Your task to perform on an android device: Go to settings Image 0: 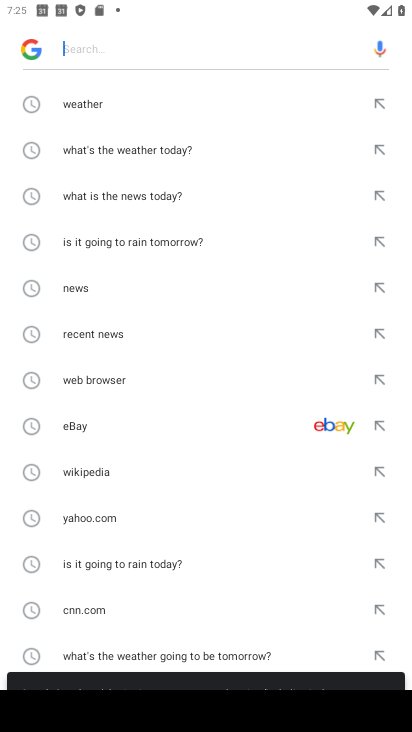
Step 0: press home button
Your task to perform on an android device: Go to settings Image 1: 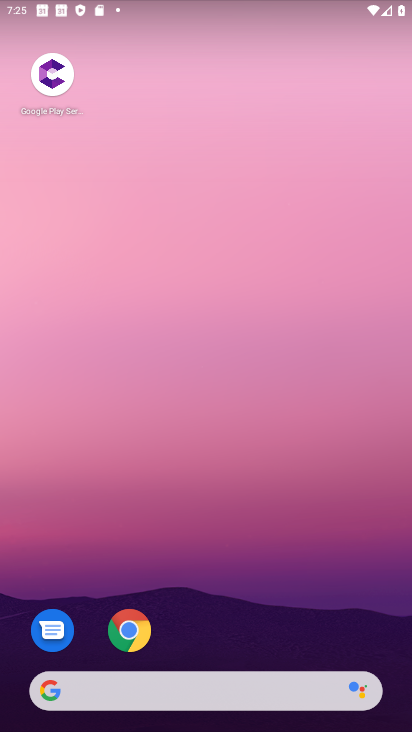
Step 1: drag from (200, 645) to (220, 223)
Your task to perform on an android device: Go to settings Image 2: 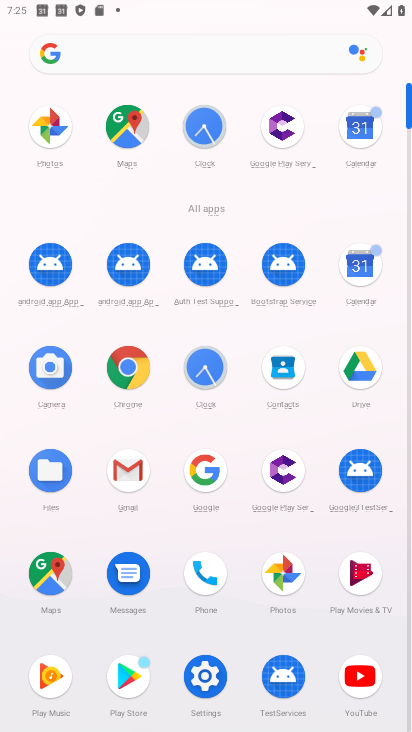
Step 2: click (200, 673)
Your task to perform on an android device: Go to settings Image 3: 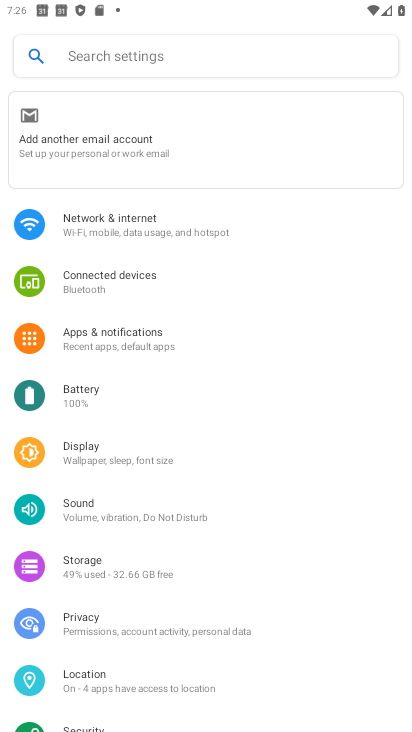
Step 3: task complete